Your task to perform on an android device: What's the weather going to be tomorrow? Image 0: 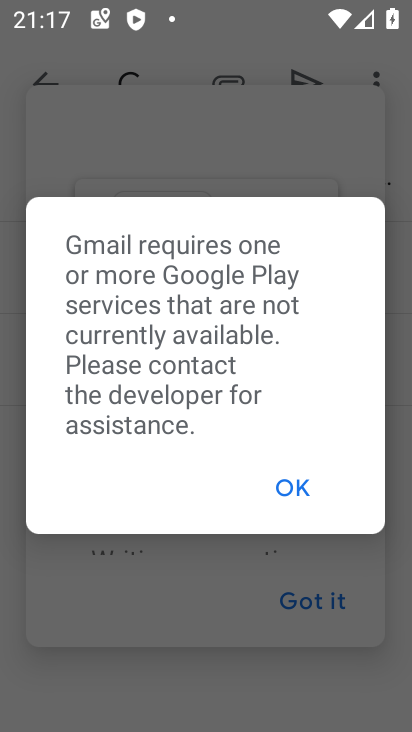
Step 0: press home button
Your task to perform on an android device: What's the weather going to be tomorrow? Image 1: 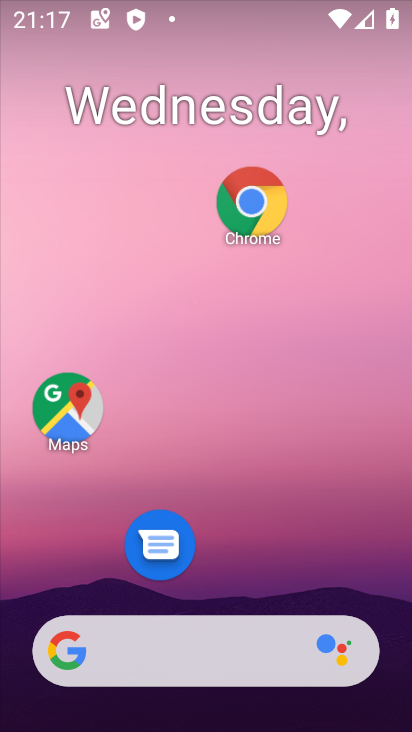
Step 1: click (250, 650)
Your task to perform on an android device: What's the weather going to be tomorrow? Image 2: 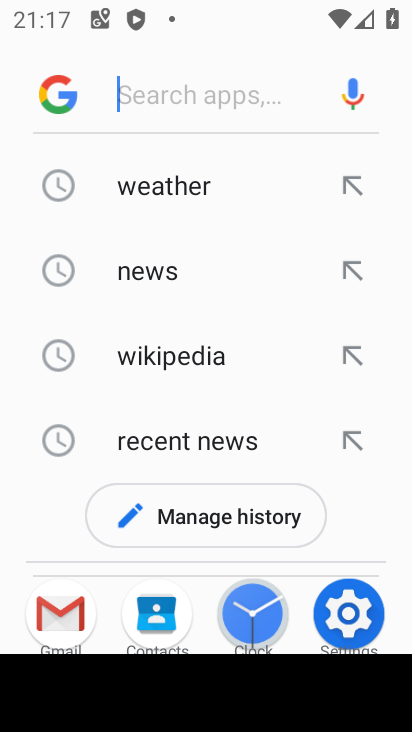
Step 2: click (217, 186)
Your task to perform on an android device: What's the weather going to be tomorrow? Image 3: 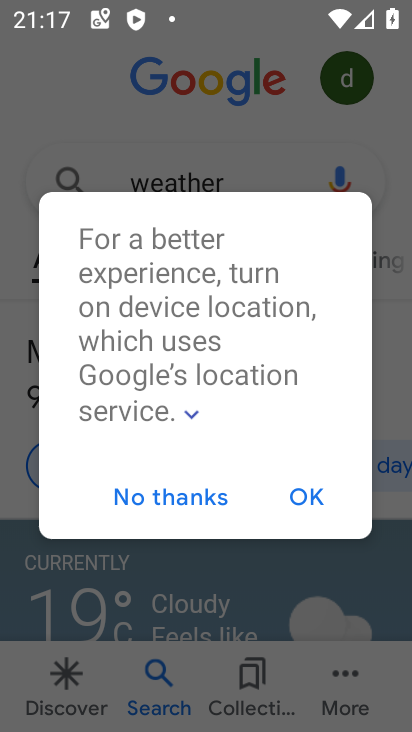
Step 3: click (307, 500)
Your task to perform on an android device: What's the weather going to be tomorrow? Image 4: 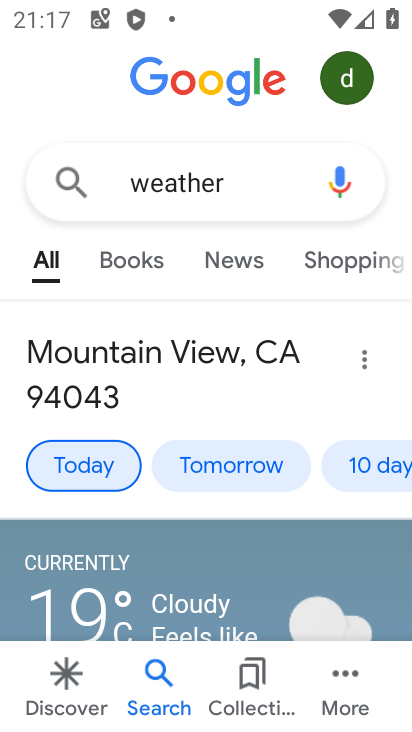
Step 4: click (223, 465)
Your task to perform on an android device: What's the weather going to be tomorrow? Image 5: 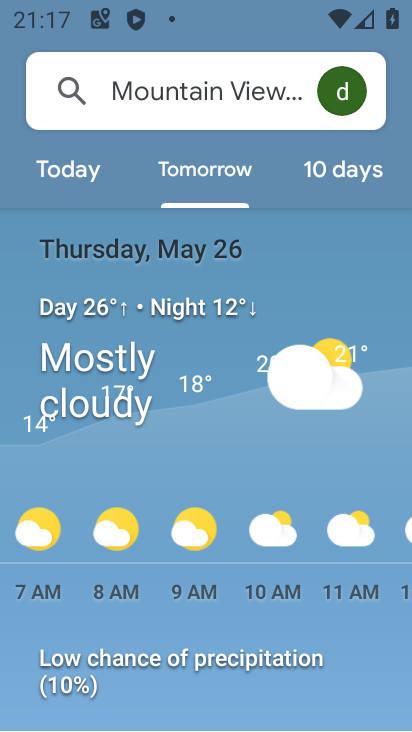
Step 5: task complete